Your task to perform on an android device: What's on my calendar tomorrow? Image 0: 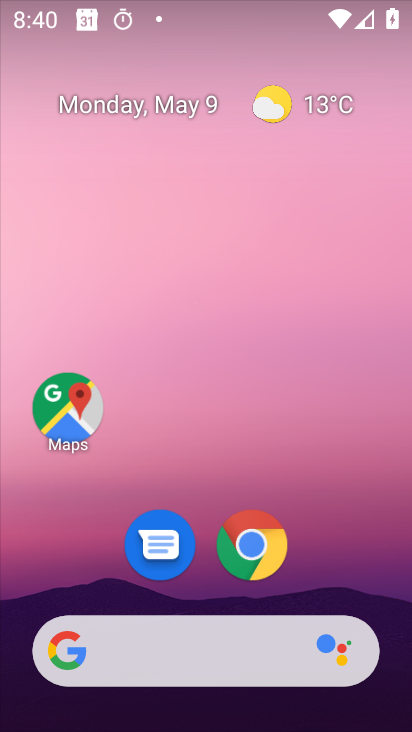
Step 0: drag from (324, 487) to (326, 86)
Your task to perform on an android device: What's on my calendar tomorrow? Image 1: 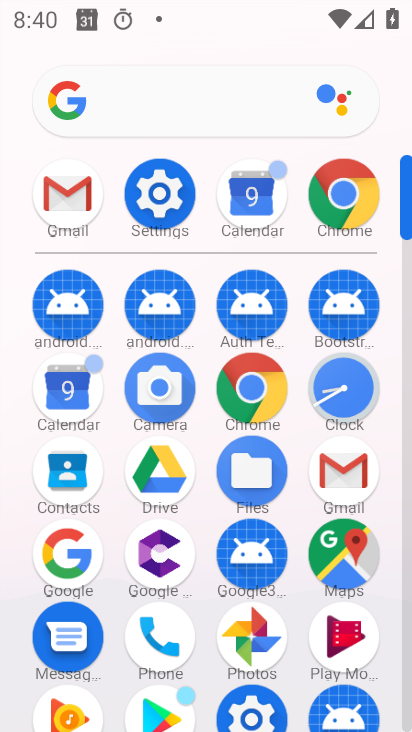
Step 1: click (69, 401)
Your task to perform on an android device: What's on my calendar tomorrow? Image 2: 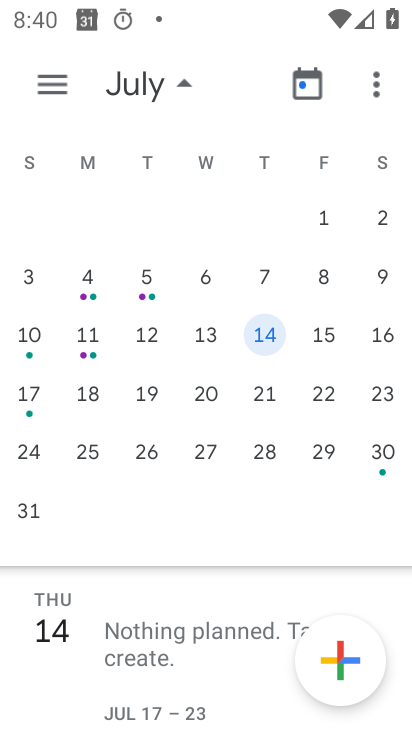
Step 2: click (321, 330)
Your task to perform on an android device: What's on my calendar tomorrow? Image 3: 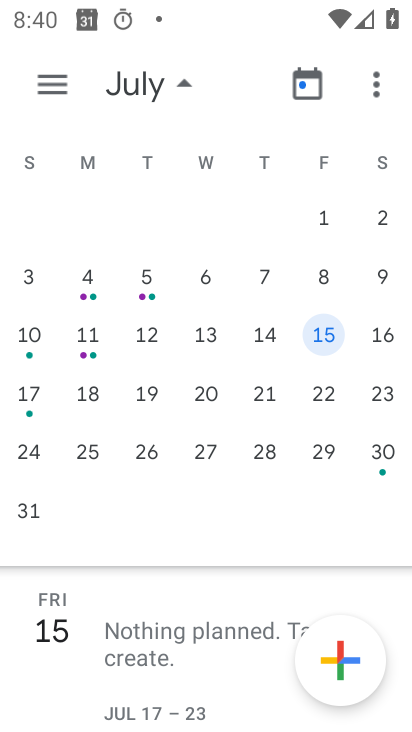
Step 3: task complete